Your task to perform on an android device: turn off improve location accuracy Image 0: 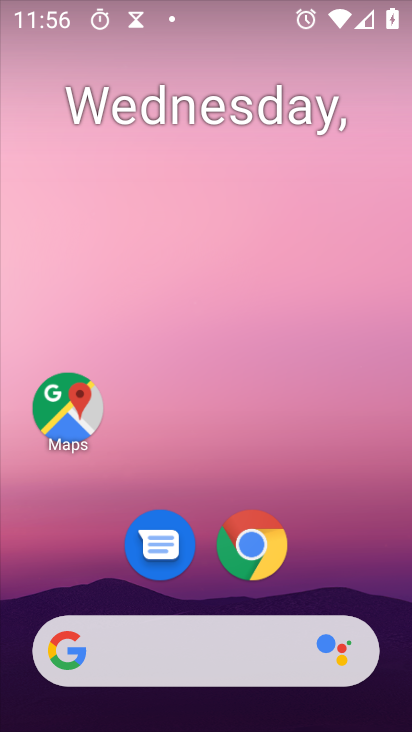
Step 0: press home button
Your task to perform on an android device: turn off improve location accuracy Image 1: 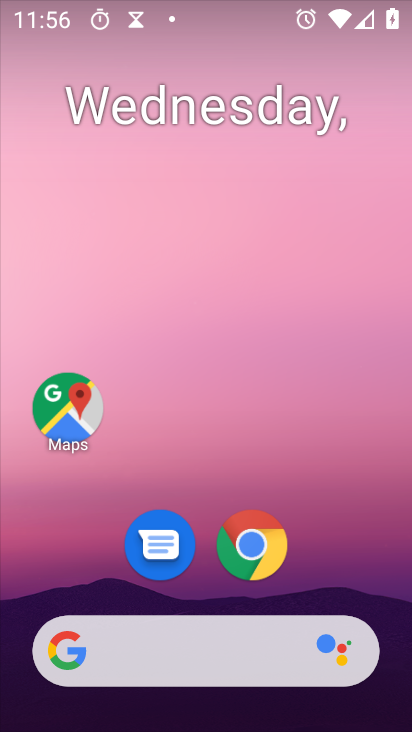
Step 1: drag from (158, 655) to (324, 112)
Your task to perform on an android device: turn off improve location accuracy Image 2: 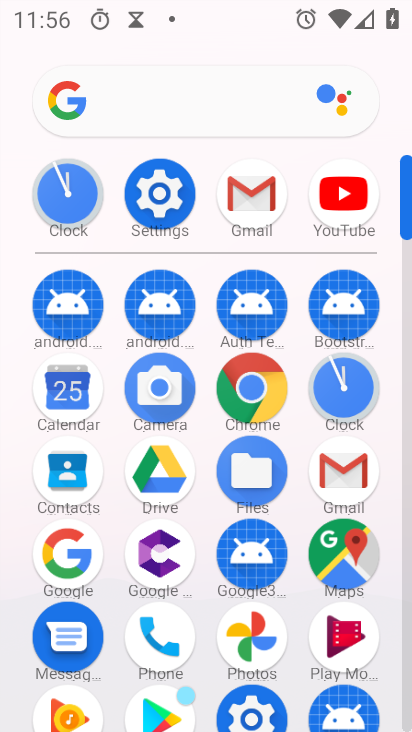
Step 2: click (159, 189)
Your task to perform on an android device: turn off improve location accuracy Image 3: 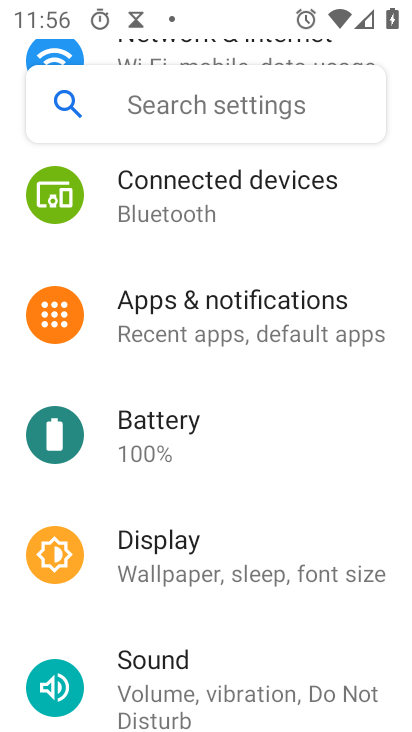
Step 3: drag from (236, 563) to (399, 88)
Your task to perform on an android device: turn off improve location accuracy Image 4: 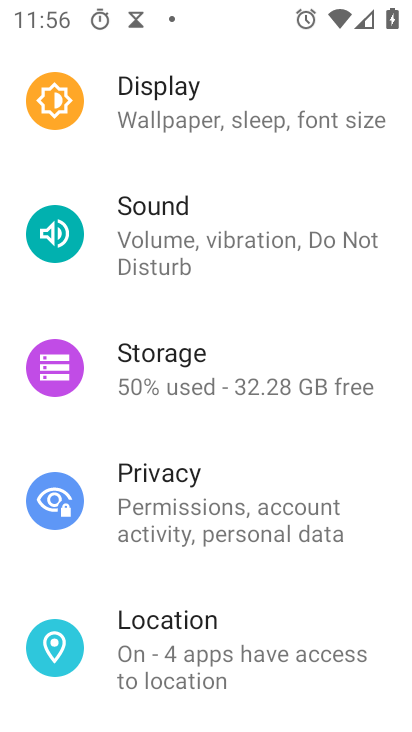
Step 4: click (193, 626)
Your task to perform on an android device: turn off improve location accuracy Image 5: 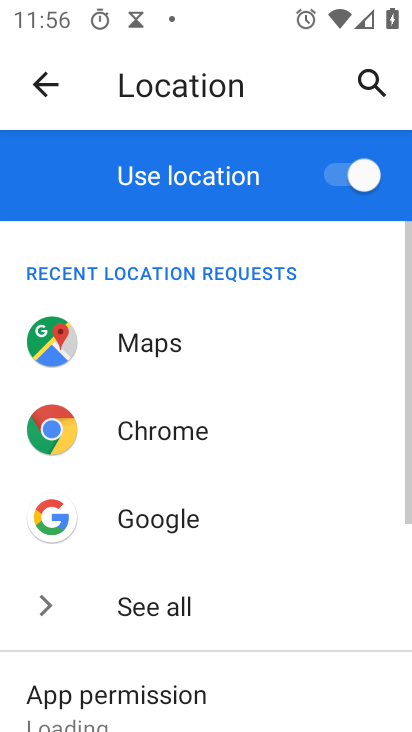
Step 5: drag from (227, 661) to (388, 90)
Your task to perform on an android device: turn off improve location accuracy Image 6: 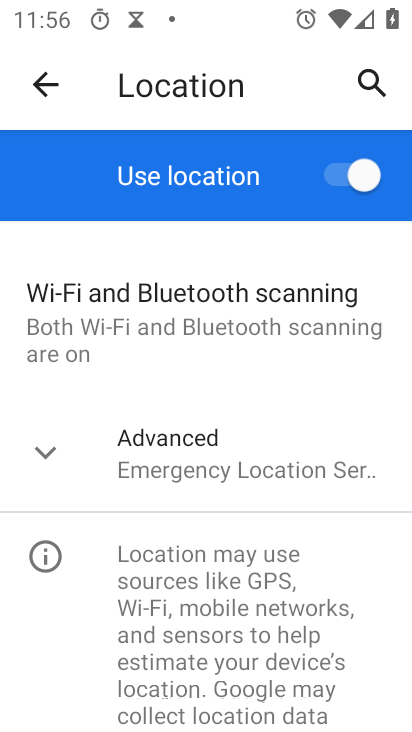
Step 6: click (239, 418)
Your task to perform on an android device: turn off improve location accuracy Image 7: 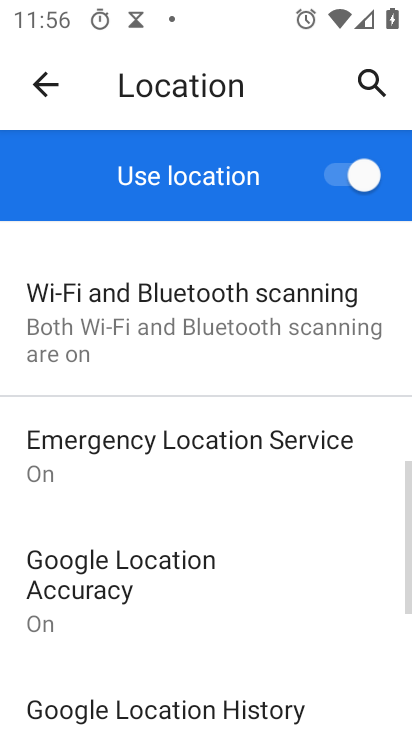
Step 7: click (111, 572)
Your task to perform on an android device: turn off improve location accuracy Image 8: 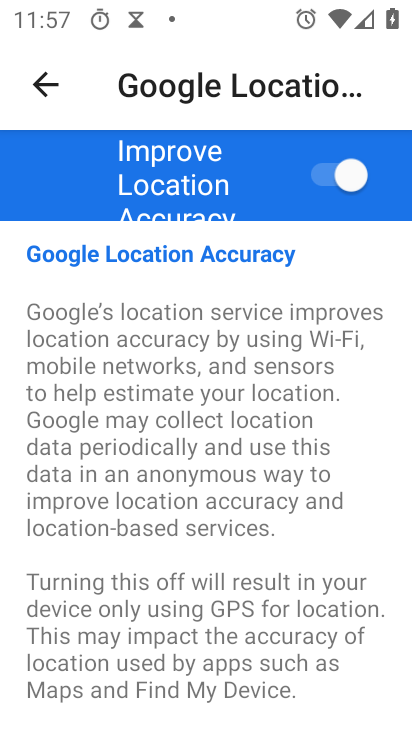
Step 8: click (323, 185)
Your task to perform on an android device: turn off improve location accuracy Image 9: 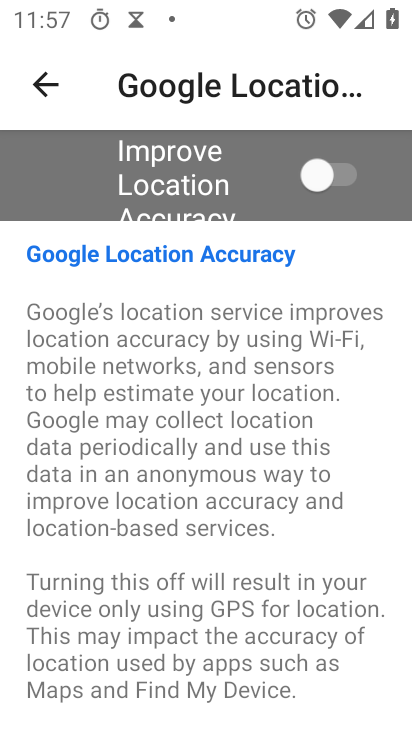
Step 9: task complete